Your task to perform on an android device: Open the calendar and show me this week's events? Image 0: 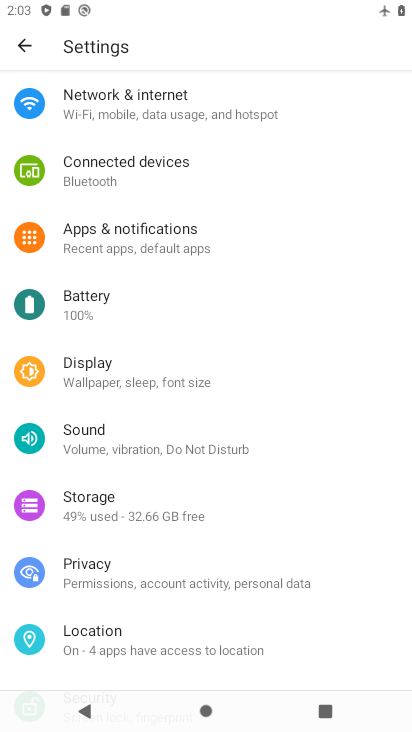
Step 0: press home button
Your task to perform on an android device: Open the calendar and show me this week's events? Image 1: 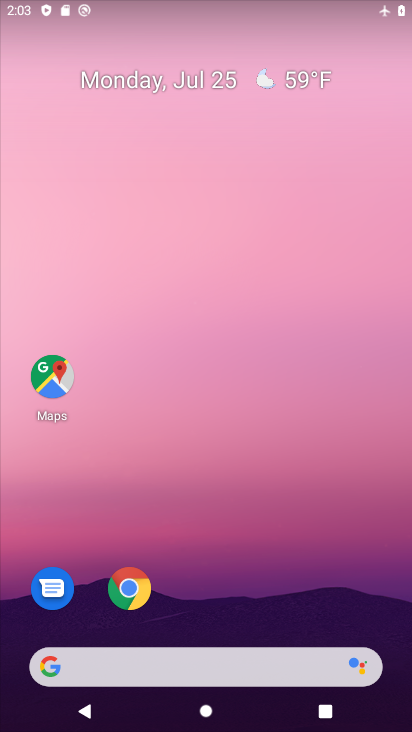
Step 1: drag from (376, 10) to (396, 331)
Your task to perform on an android device: Open the calendar and show me this week's events? Image 2: 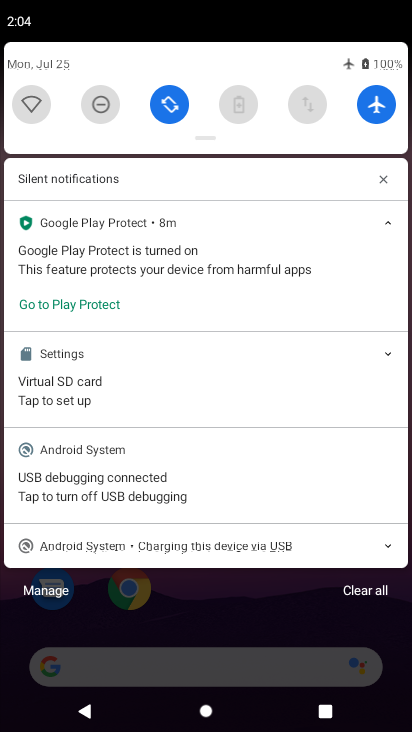
Step 2: click (371, 107)
Your task to perform on an android device: Open the calendar and show me this week's events? Image 3: 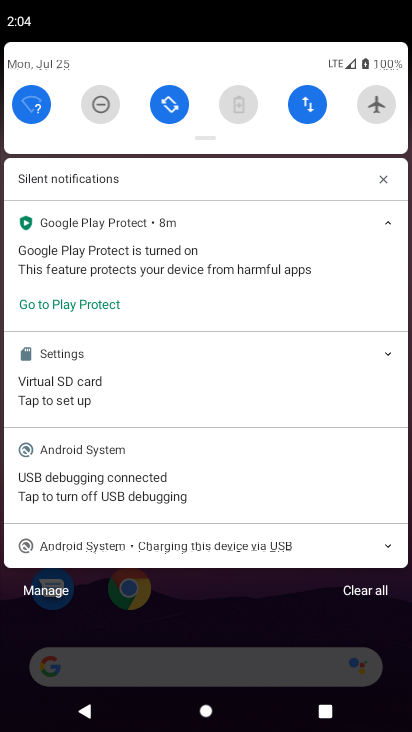
Step 3: click (365, 596)
Your task to perform on an android device: Open the calendar and show me this week's events? Image 4: 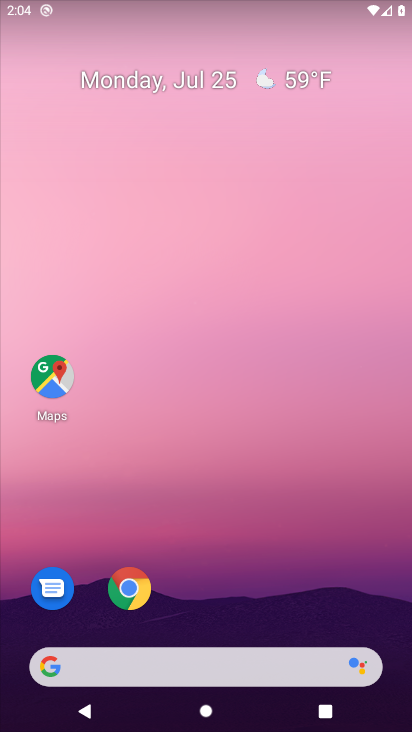
Step 4: drag from (330, 448) to (264, 53)
Your task to perform on an android device: Open the calendar and show me this week's events? Image 5: 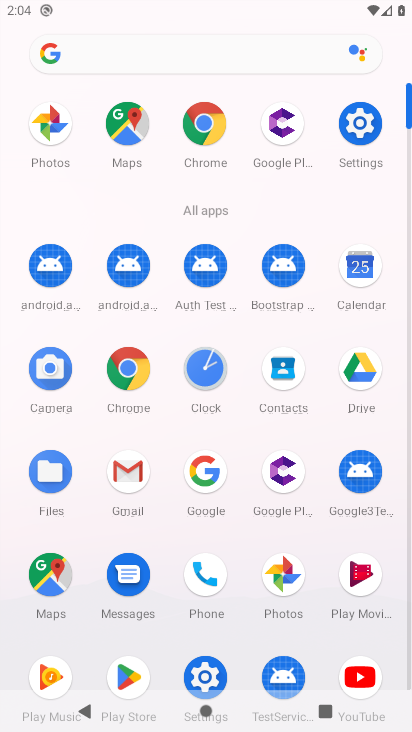
Step 5: click (367, 280)
Your task to perform on an android device: Open the calendar and show me this week's events? Image 6: 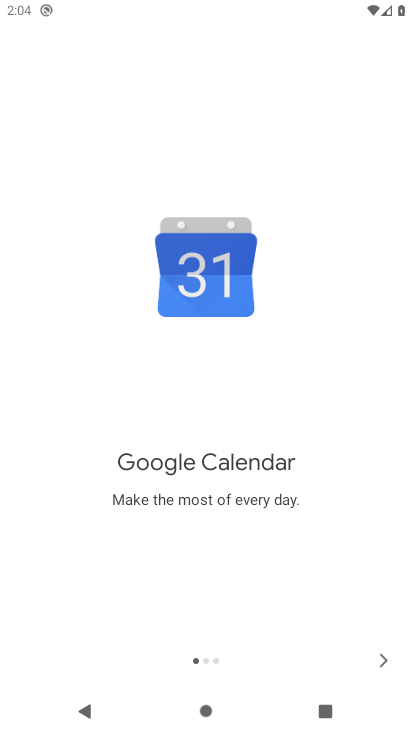
Step 6: click (388, 659)
Your task to perform on an android device: Open the calendar and show me this week's events? Image 7: 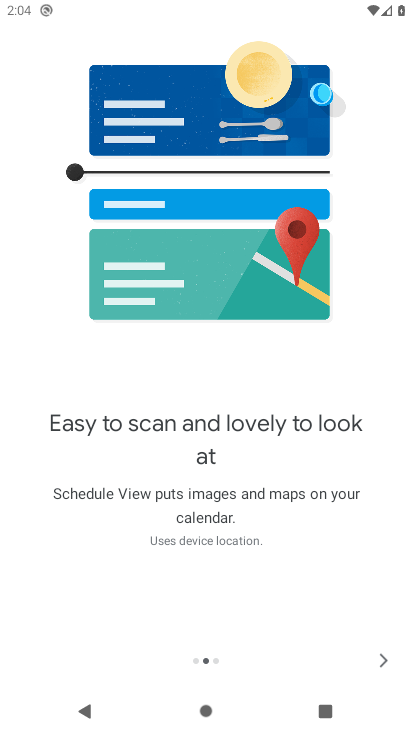
Step 7: click (388, 659)
Your task to perform on an android device: Open the calendar and show me this week's events? Image 8: 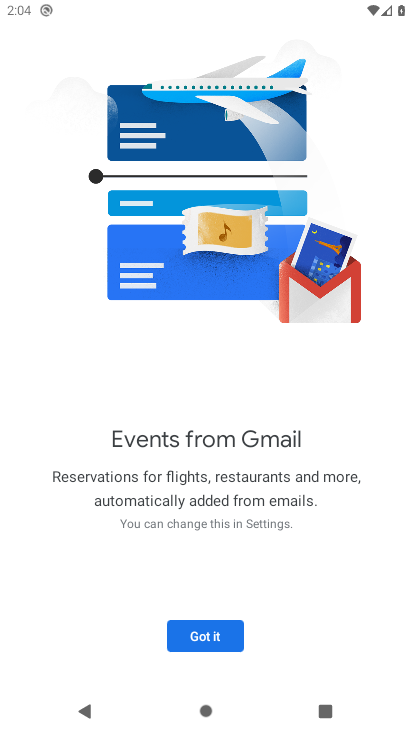
Step 8: click (202, 642)
Your task to perform on an android device: Open the calendar and show me this week's events? Image 9: 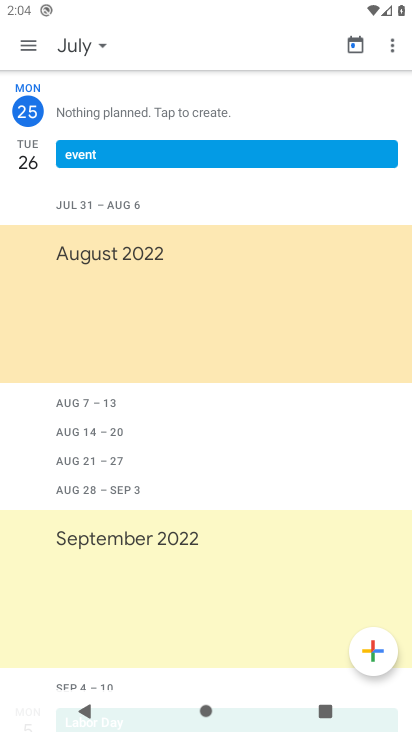
Step 9: click (229, 641)
Your task to perform on an android device: Open the calendar and show me this week's events? Image 10: 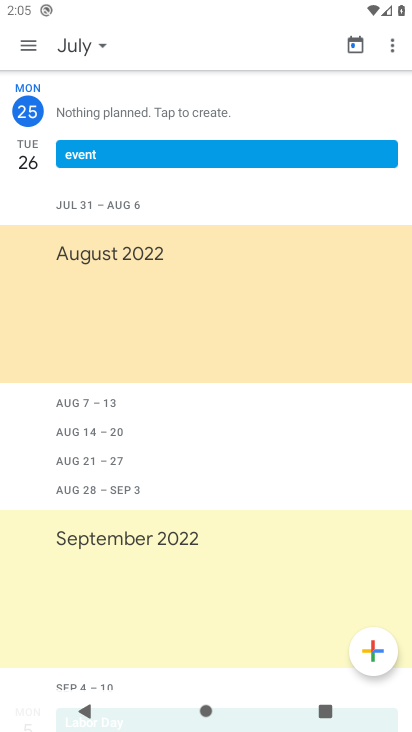
Step 10: click (36, 55)
Your task to perform on an android device: Open the calendar and show me this week's events? Image 11: 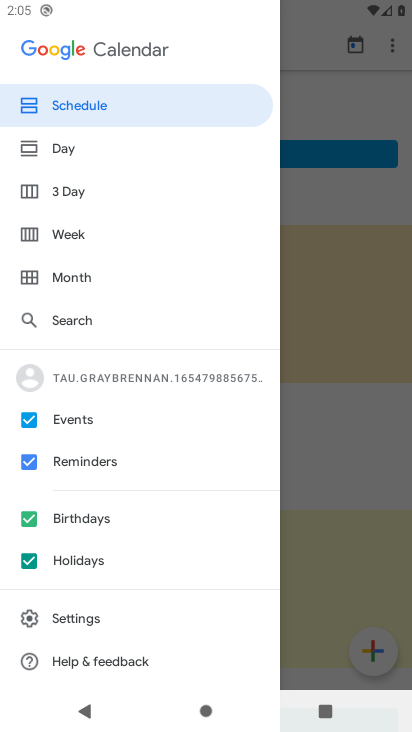
Step 11: click (85, 230)
Your task to perform on an android device: Open the calendar and show me this week's events? Image 12: 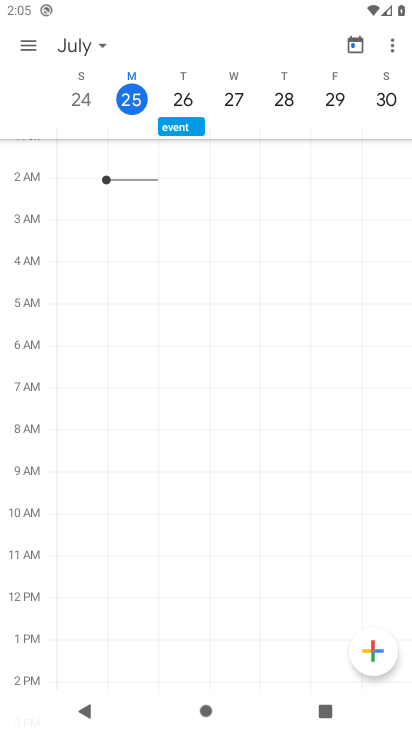
Step 12: task complete